Your task to perform on an android device: turn off translation in the chrome app Image 0: 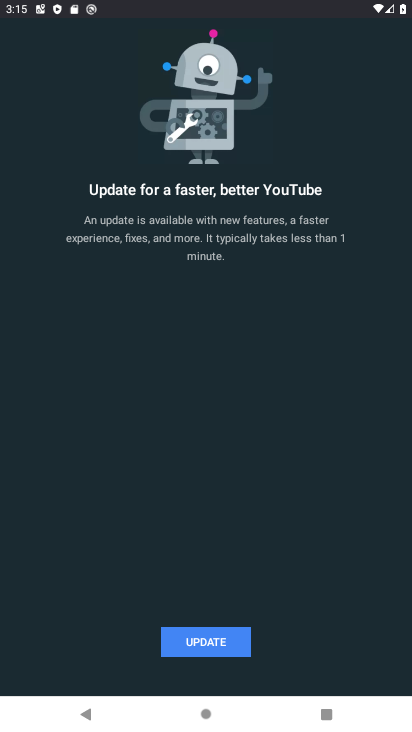
Step 0: press home button
Your task to perform on an android device: turn off translation in the chrome app Image 1: 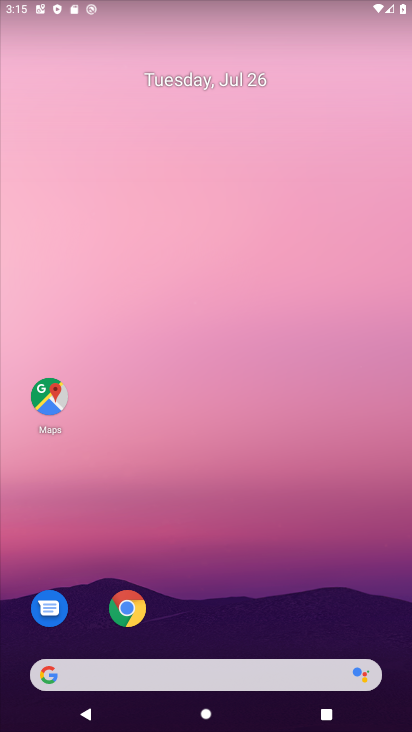
Step 1: click (122, 610)
Your task to perform on an android device: turn off translation in the chrome app Image 2: 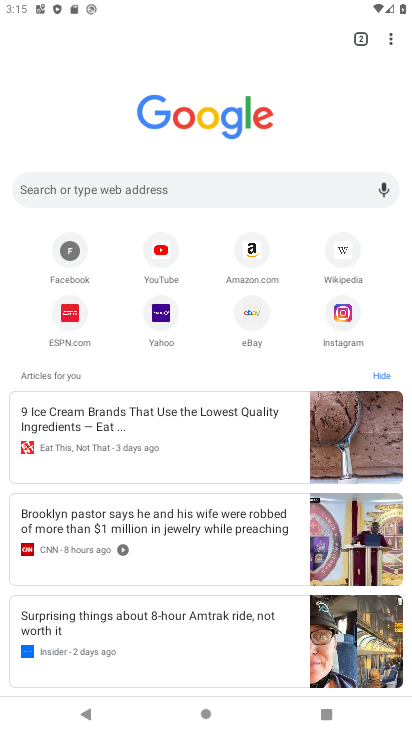
Step 2: task complete